Your task to perform on an android device: Do I have any events tomorrow? Image 0: 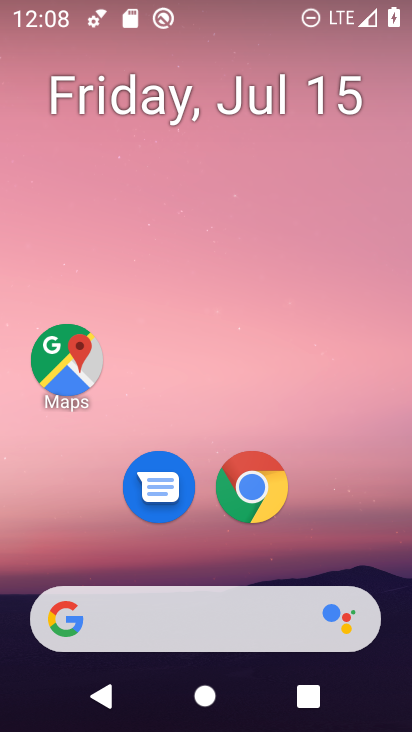
Step 0: press home button
Your task to perform on an android device: Do I have any events tomorrow? Image 1: 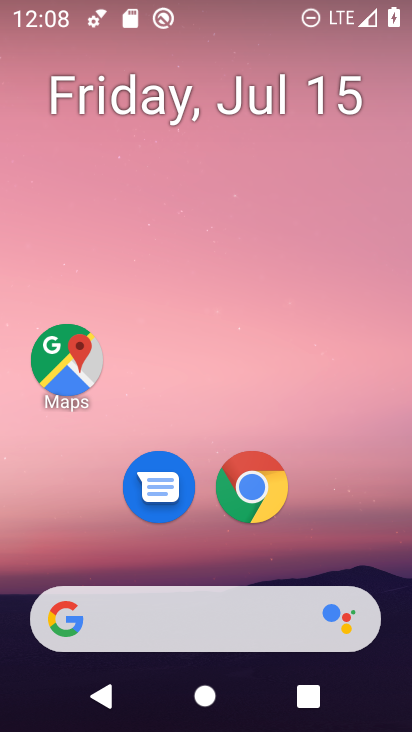
Step 1: drag from (184, 645) to (281, 90)
Your task to perform on an android device: Do I have any events tomorrow? Image 2: 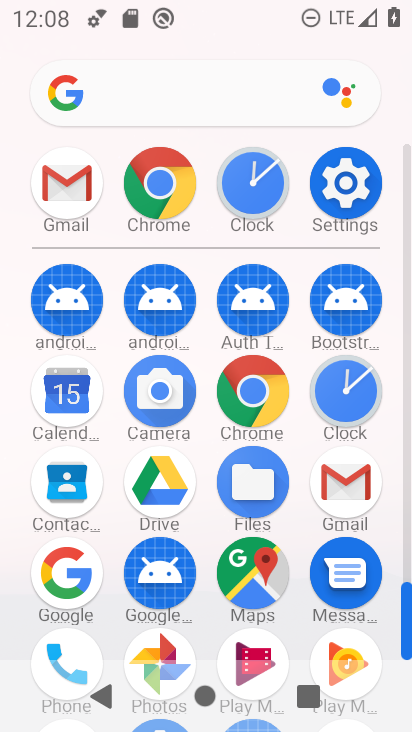
Step 2: drag from (239, 477) to (218, 189)
Your task to perform on an android device: Do I have any events tomorrow? Image 3: 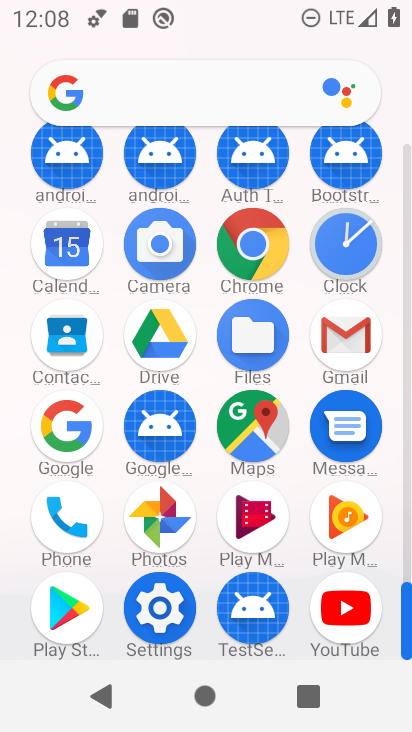
Step 3: click (82, 258)
Your task to perform on an android device: Do I have any events tomorrow? Image 4: 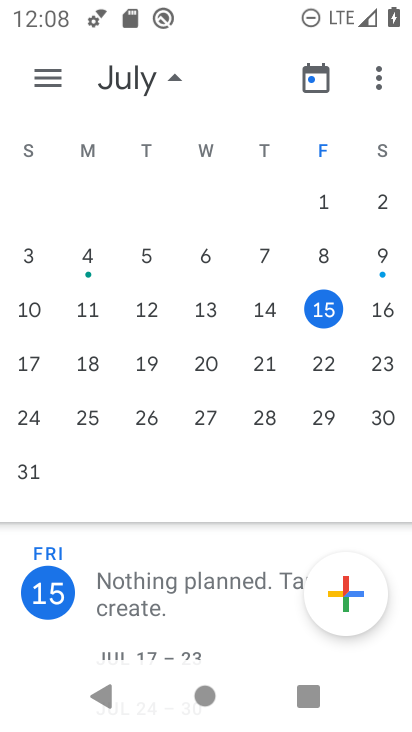
Step 4: click (321, 316)
Your task to perform on an android device: Do I have any events tomorrow? Image 5: 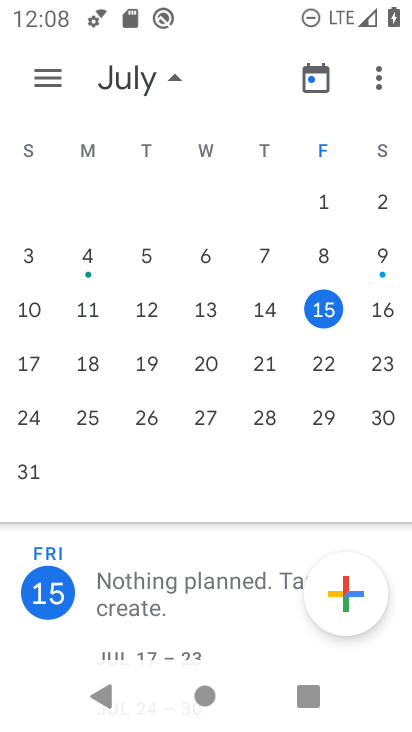
Step 5: click (384, 320)
Your task to perform on an android device: Do I have any events tomorrow? Image 6: 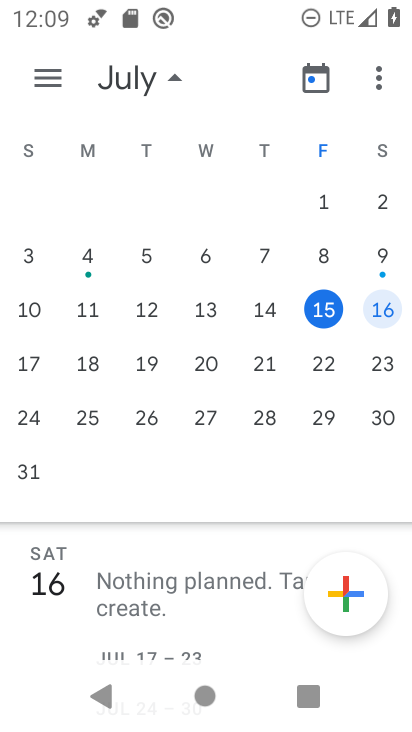
Step 6: task complete